Your task to perform on an android device: Show me popular games on the Play Store Image 0: 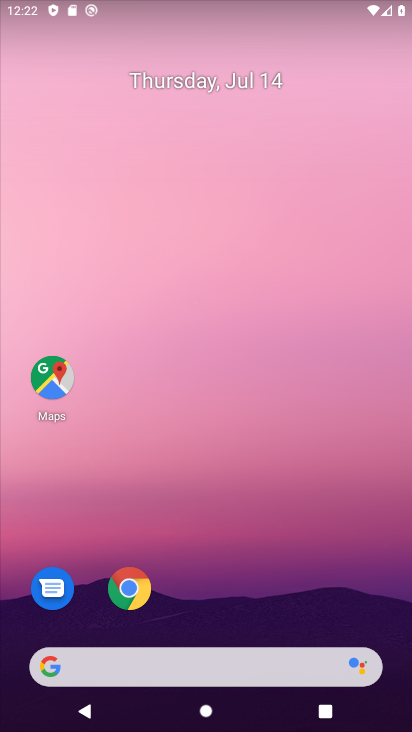
Step 0: press home button
Your task to perform on an android device: Show me popular games on the Play Store Image 1: 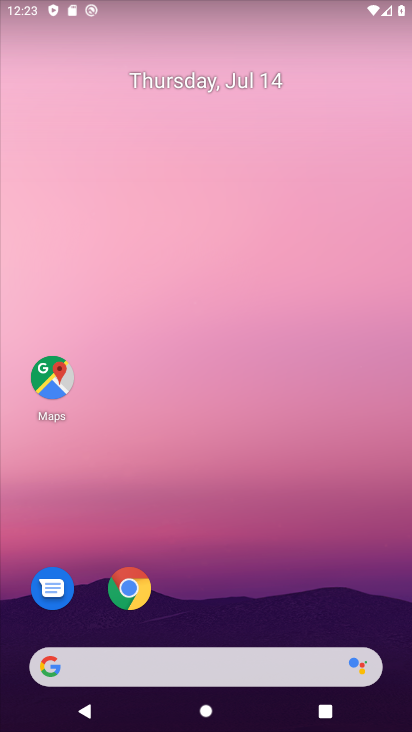
Step 1: drag from (173, 662) to (278, 149)
Your task to perform on an android device: Show me popular games on the Play Store Image 2: 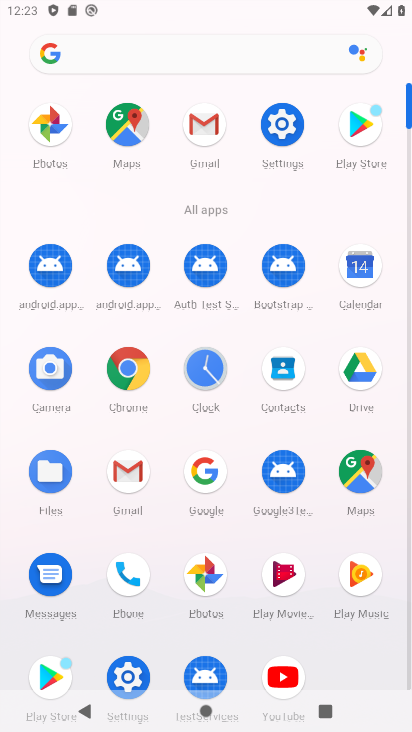
Step 2: click (46, 670)
Your task to perform on an android device: Show me popular games on the Play Store Image 3: 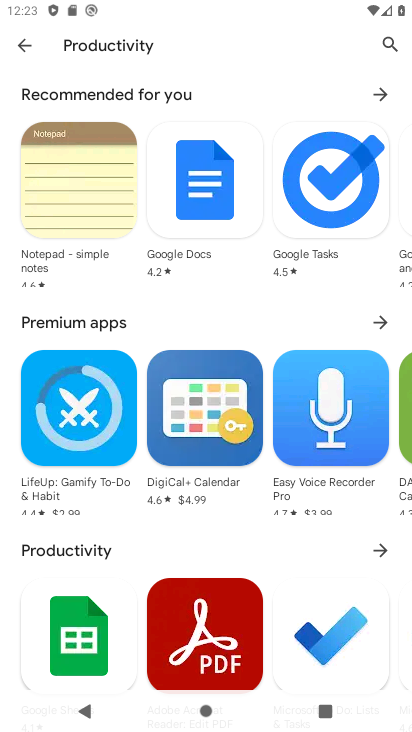
Step 3: click (14, 43)
Your task to perform on an android device: Show me popular games on the Play Store Image 4: 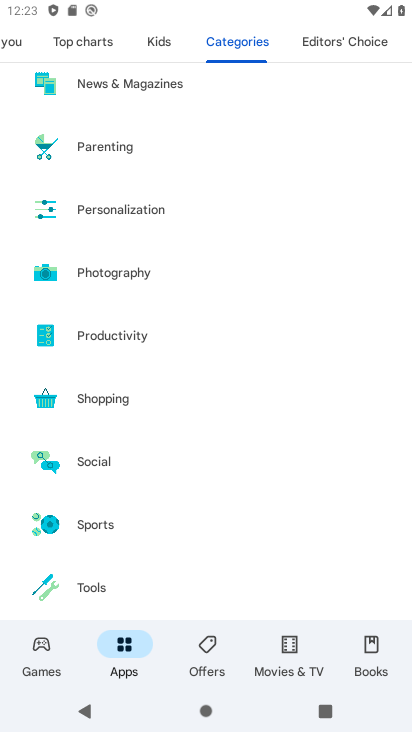
Step 4: click (34, 645)
Your task to perform on an android device: Show me popular games on the Play Store Image 5: 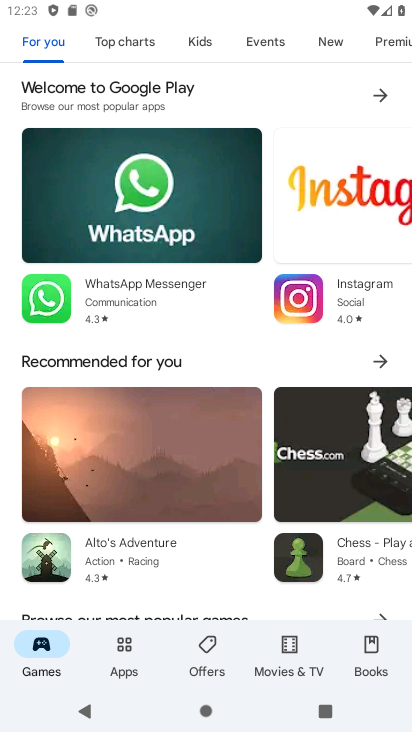
Step 5: drag from (151, 537) to (295, 69)
Your task to perform on an android device: Show me popular games on the Play Store Image 6: 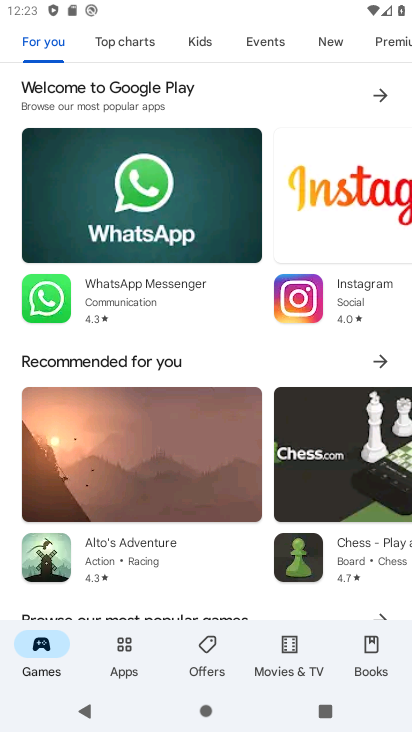
Step 6: drag from (227, 549) to (301, 59)
Your task to perform on an android device: Show me popular games on the Play Store Image 7: 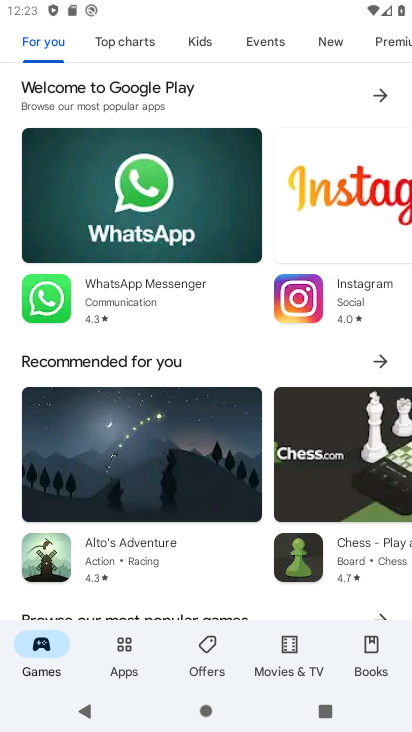
Step 7: drag from (129, 370) to (255, 55)
Your task to perform on an android device: Show me popular games on the Play Store Image 8: 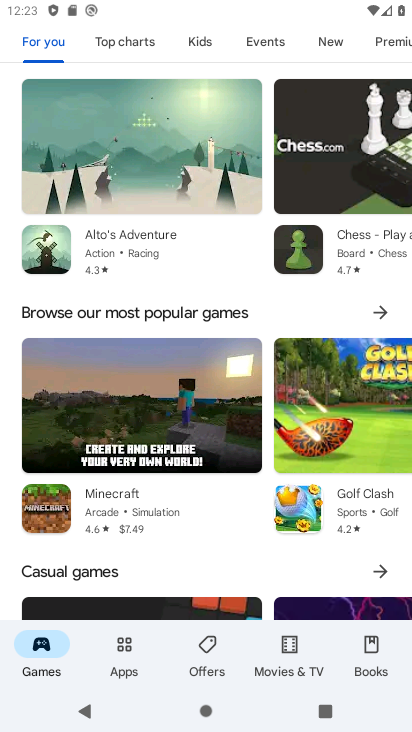
Step 8: click (381, 314)
Your task to perform on an android device: Show me popular games on the Play Store Image 9: 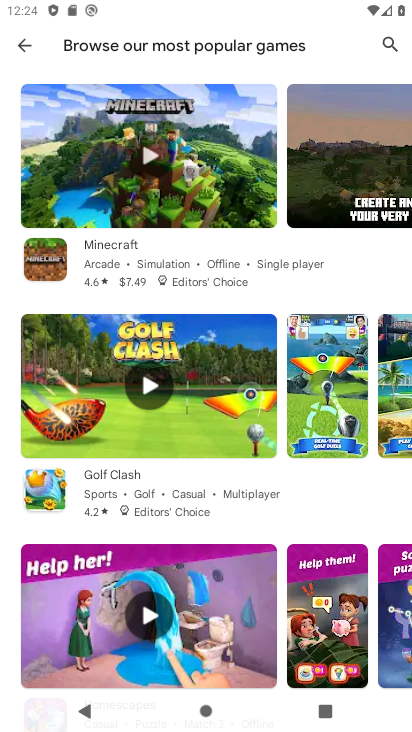
Step 9: task complete